Your task to perform on an android device: Clear the cart on bestbuy.com. Search for corsair k70 on bestbuy.com, select the first entry, and add it to the cart. Image 0: 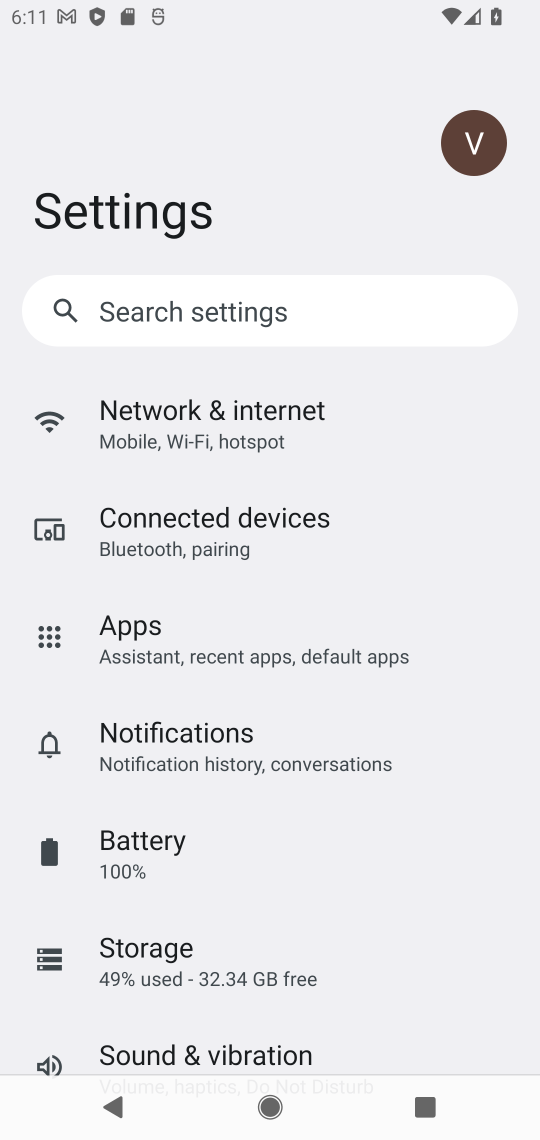
Step 0: press home button
Your task to perform on an android device: Clear the cart on bestbuy.com. Search for corsair k70 on bestbuy.com, select the first entry, and add it to the cart. Image 1: 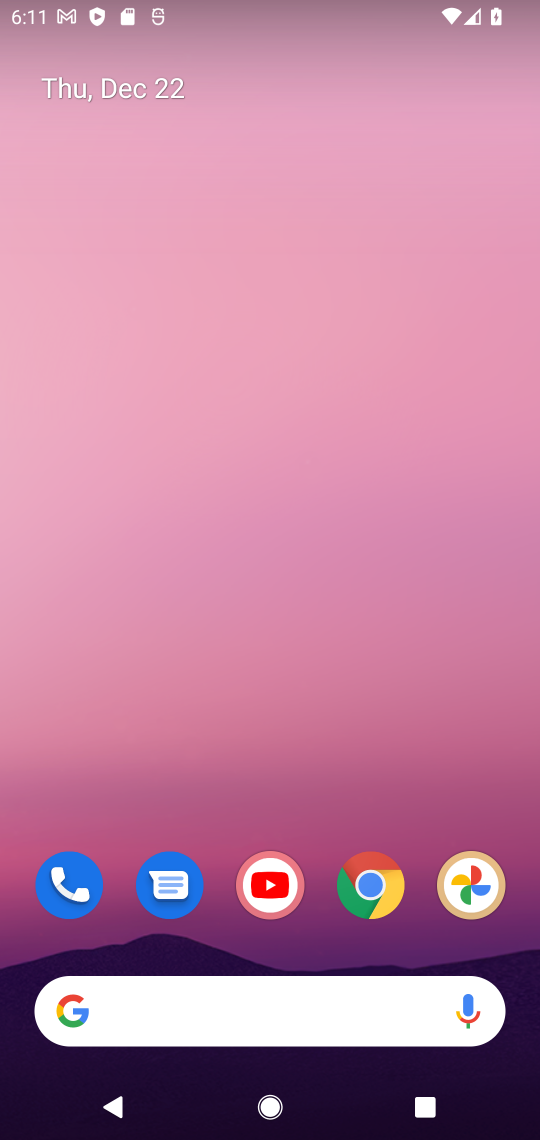
Step 1: click (371, 887)
Your task to perform on an android device: Clear the cart on bestbuy.com. Search for corsair k70 on bestbuy.com, select the first entry, and add it to the cart. Image 2: 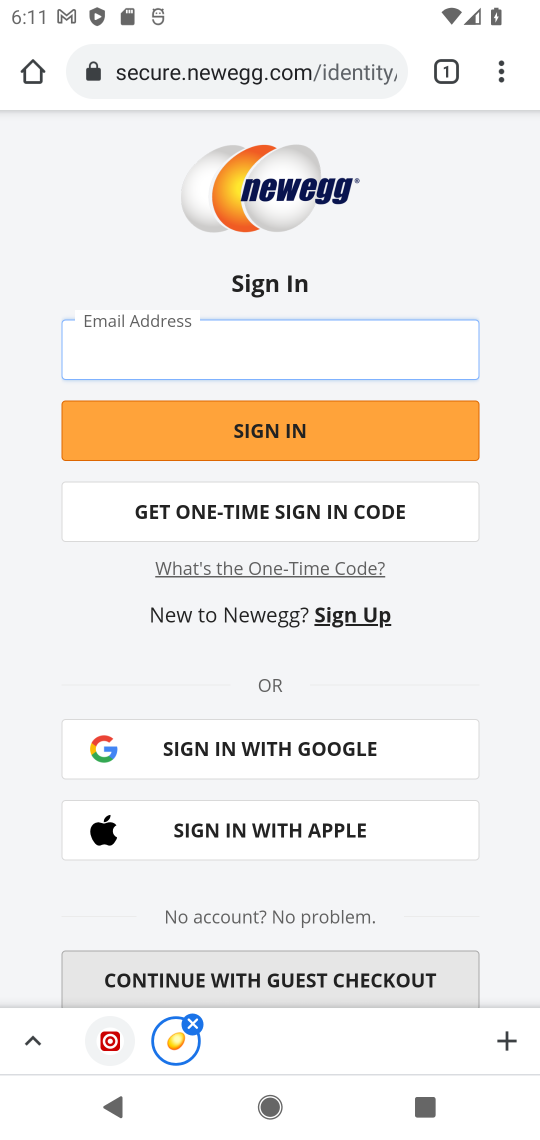
Step 2: click (190, 76)
Your task to perform on an android device: Clear the cart on bestbuy.com. Search for corsair k70 on bestbuy.com, select the first entry, and add it to the cart. Image 3: 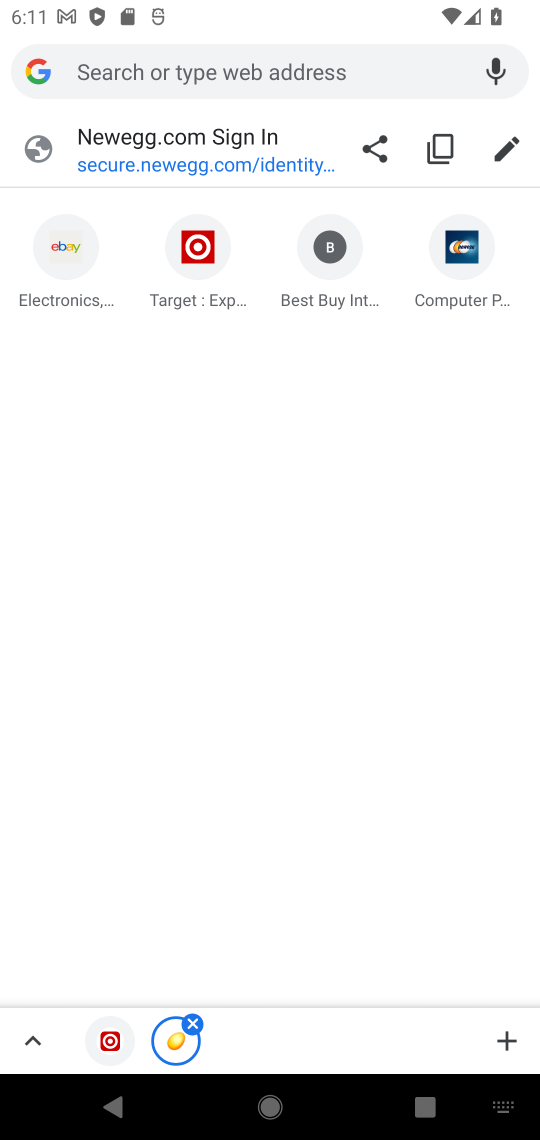
Step 3: click (336, 283)
Your task to perform on an android device: Clear the cart on bestbuy.com. Search for corsair k70 on bestbuy.com, select the first entry, and add it to the cart. Image 4: 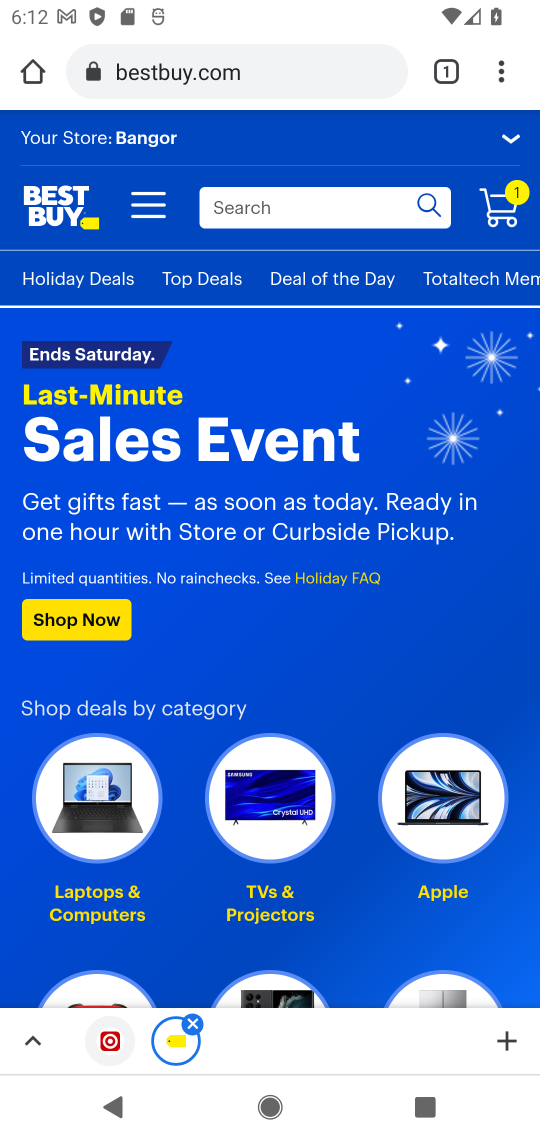
Step 4: click (497, 223)
Your task to perform on an android device: Clear the cart on bestbuy.com. Search for corsair k70 on bestbuy.com, select the first entry, and add it to the cart. Image 5: 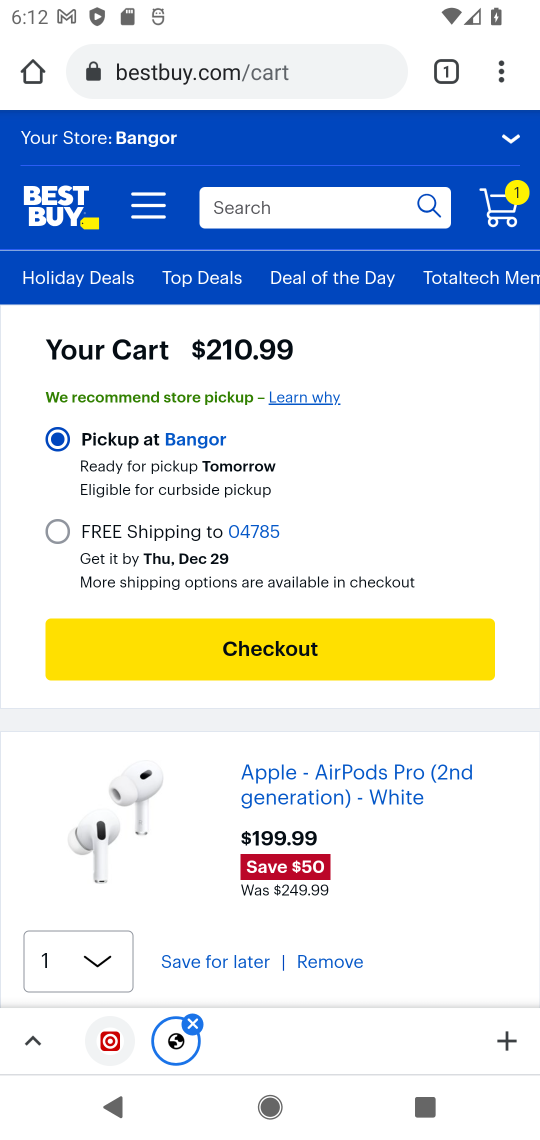
Step 5: click (318, 956)
Your task to perform on an android device: Clear the cart on bestbuy.com. Search for corsair k70 on bestbuy.com, select the first entry, and add it to the cart. Image 6: 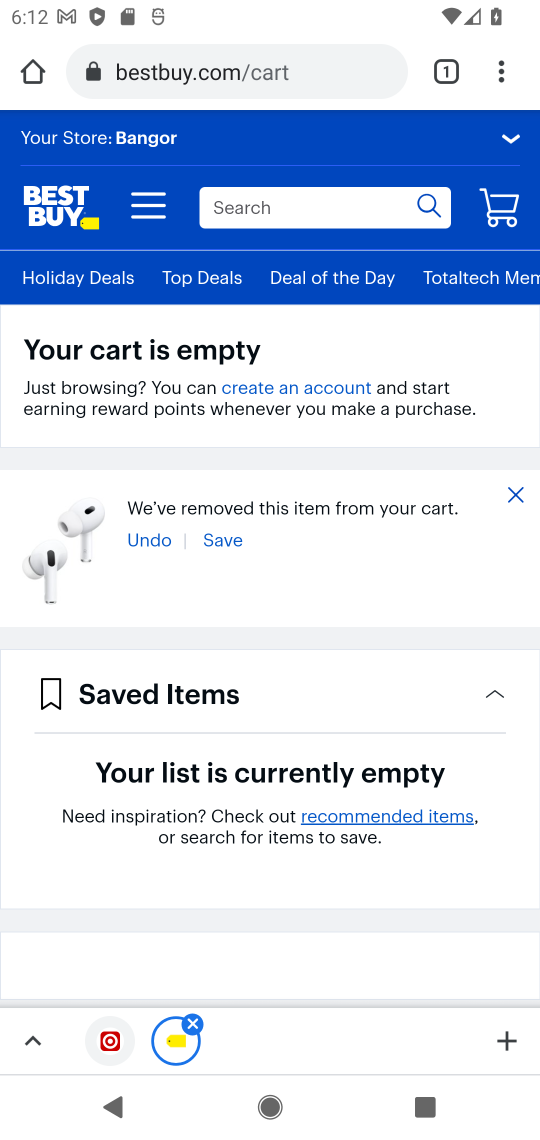
Step 6: click (280, 205)
Your task to perform on an android device: Clear the cart on bestbuy.com. Search for corsair k70 on bestbuy.com, select the first entry, and add it to the cart. Image 7: 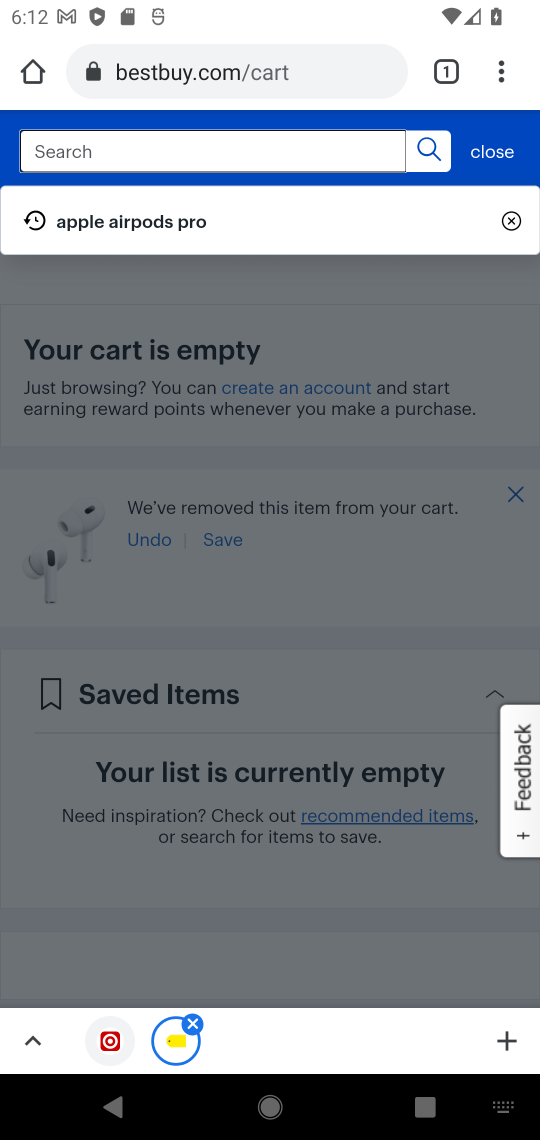
Step 7: type "corsair k70"
Your task to perform on an android device: Clear the cart on bestbuy.com. Search for corsair k70 on bestbuy.com, select the first entry, and add it to the cart. Image 8: 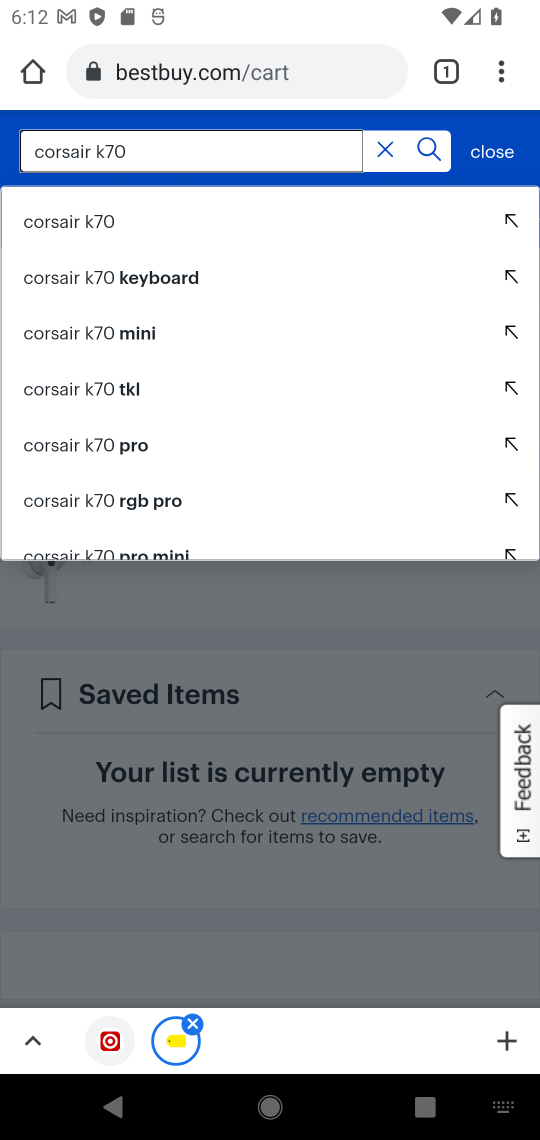
Step 8: click (59, 231)
Your task to perform on an android device: Clear the cart on bestbuy.com. Search for corsair k70 on bestbuy.com, select the first entry, and add it to the cart. Image 9: 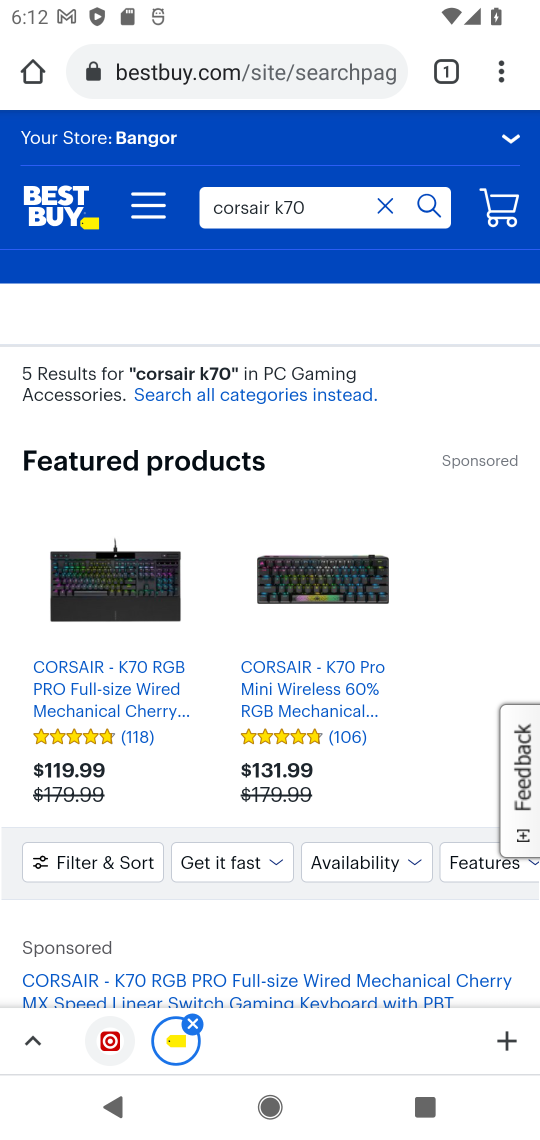
Step 9: drag from (211, 895) to (196, 422)
Your task to perform on an android device: Clear the cart on bestbuy.com. Search for corsair k70 on bestbuy.com, select the first entry, and add it to the cart. Image 10: 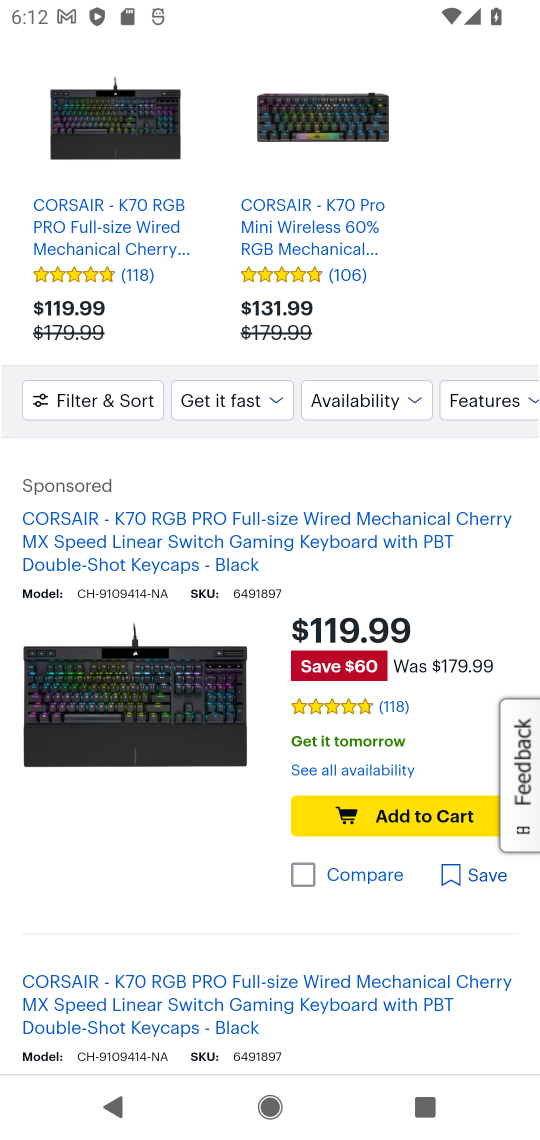
Step 10: click (380, 825)
Your task to perform on an android device: Clear the cart on bestbuy.com. Search for corsair k70 on bestbuy.com, select the first entry, and add it to the cart. Image 11: 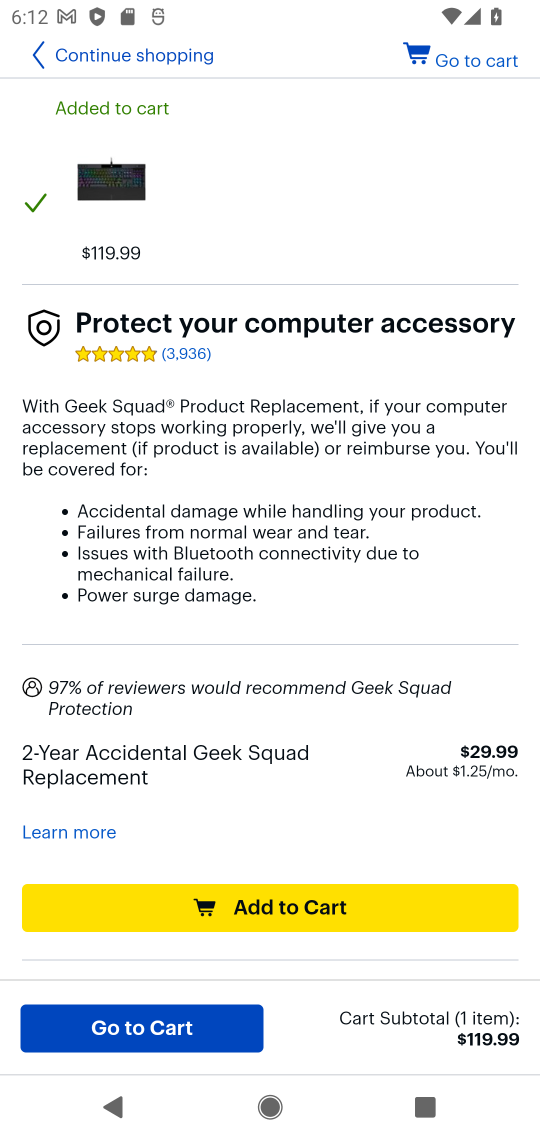
Step 11: task complete